Your task to perform on an android device: delete the emails in spam in the gmail app Image 0: 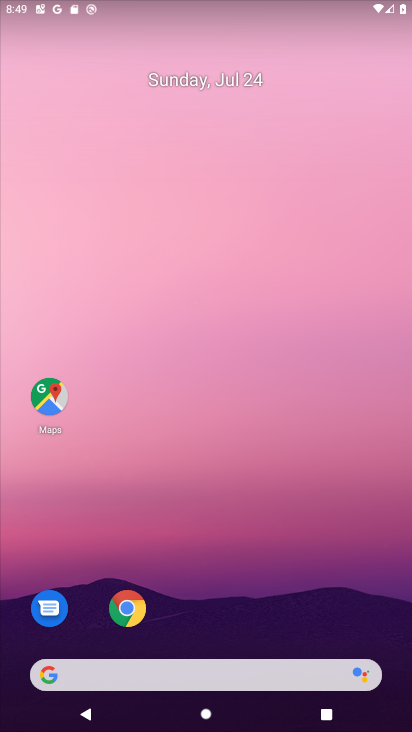
Step 0: click (253, 21)
Your task to perform on an android device: delete the emails in spam in the gmail app Image 1: 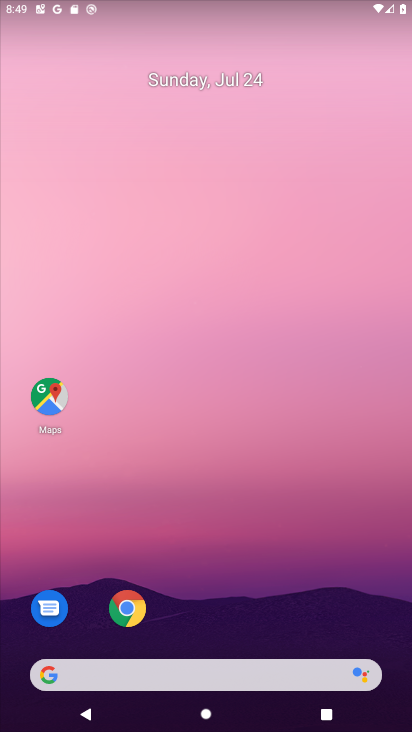
Step 1: drag from (231, 604) to (275, 138)
Your task to perform on an android device: delete the emails in spam in the gmail app Image 2: 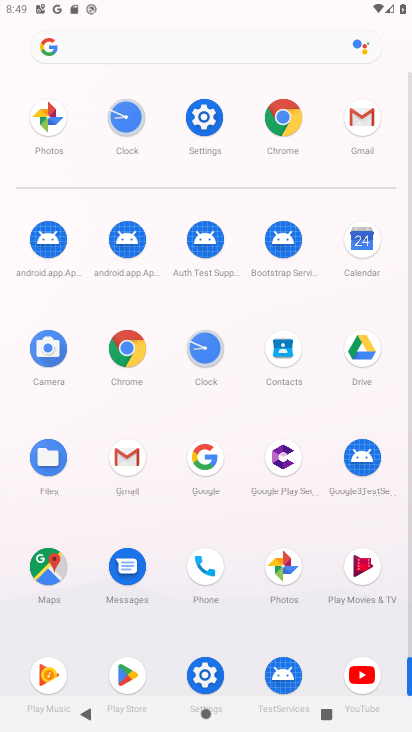
Step 2: click (387, 123)
Your task to perform on an android device: delete the emails in spam in the gmail app Image 3: 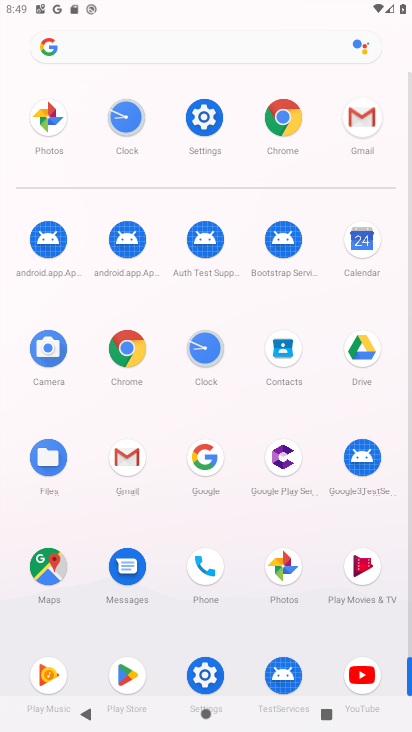
Step 3: click (387, 123)
Your task to perform on an android device: delete the emails in spam in the gmail app Image 4: 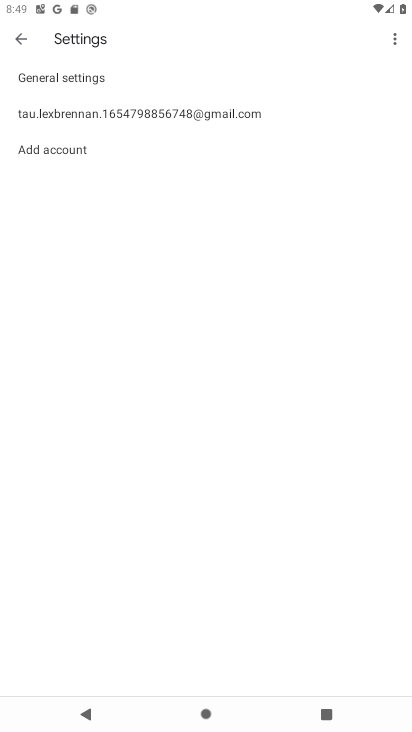
Step 4: click (24, 34)
Your task to perform on an android device: delete the emails in spam in the gmail app Image 5: 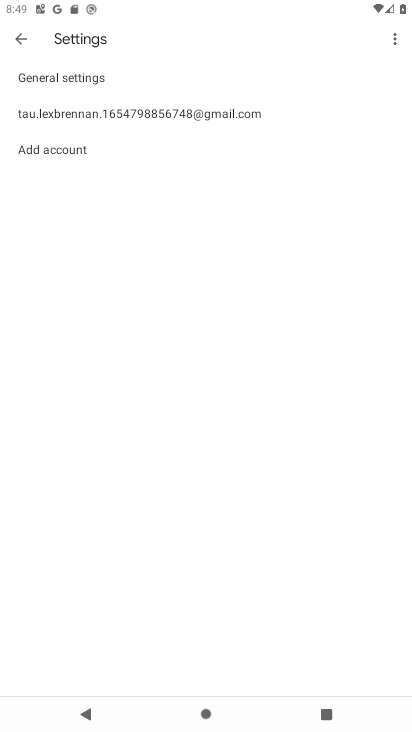
Step 5: click (25, 43)
Your task to perform on an android device: delete the emails in spam in the gmail app Image 6: 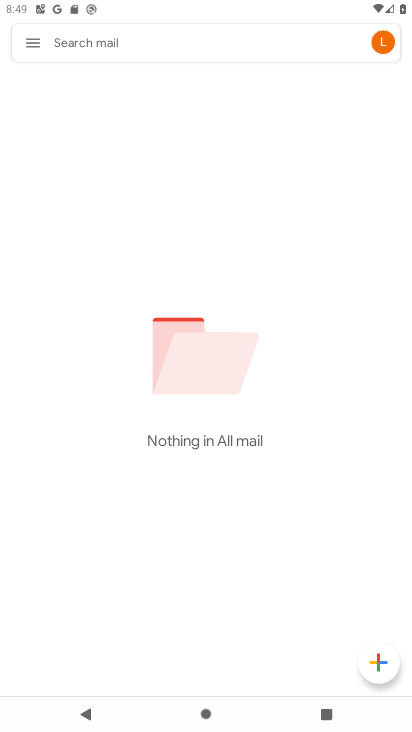
Step 6: click (26, 45)
Your task to perform on an android device: delete the emails in spam in the gmail app Image 7: 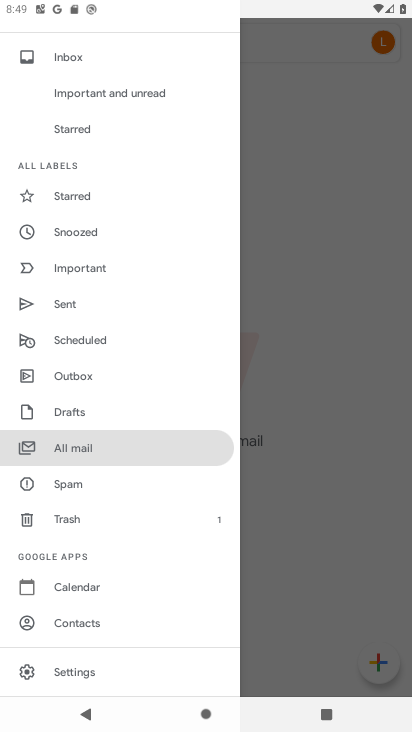
Step 7: click (41, 493)
Your task to perform on an android device: delete the emails in spam in the gmail app Image 8: 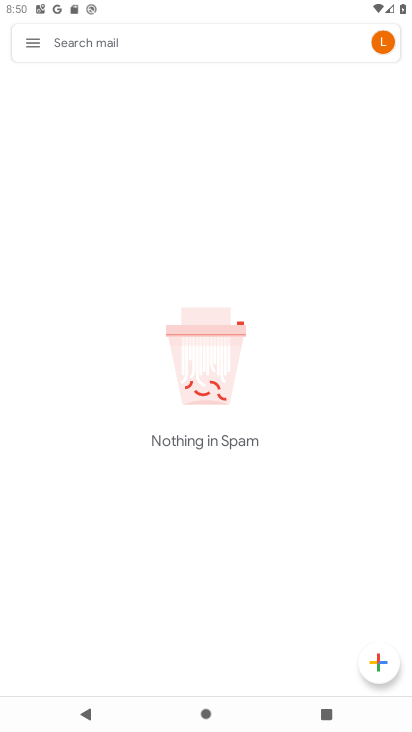
Step 8: task complete